Your task to perform on an android device: turn on translation in the chrome app Image 0: 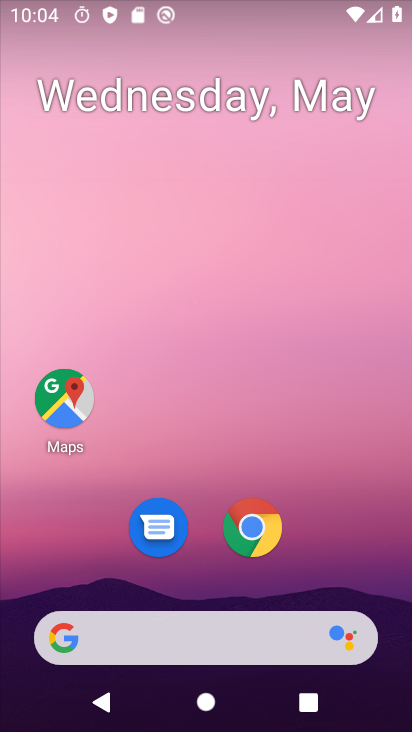
Step 0: press home button
Your task to perform on an android device: turn on translation in the chrome app Image 1: 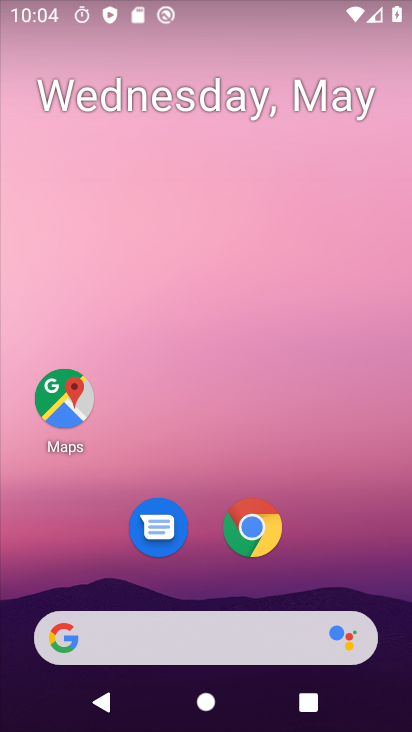
Step 1: click (252, 532)
Your task to perform on an android device: turn on translation in the chrome app Image 2: 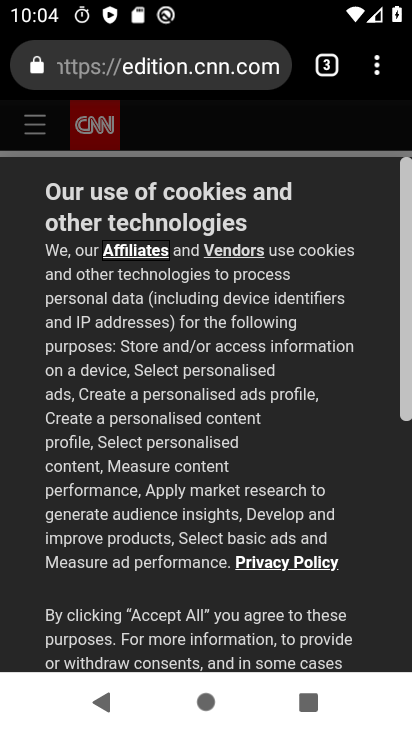
Step 2: drag from (378, 51) to (178, 582)
Your task to perform on an android device: turn on translation in the chrome app Image 3: 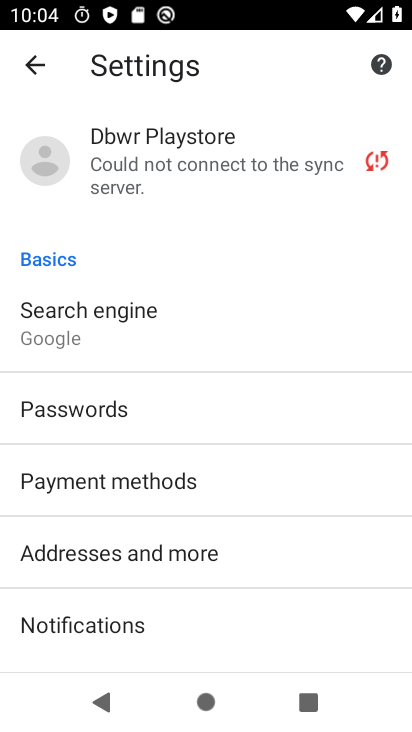
Step 3: drag from (339, 538) to (207, 281)
Your task to perform on an android device: turn on translation in the chrome app Image 4: 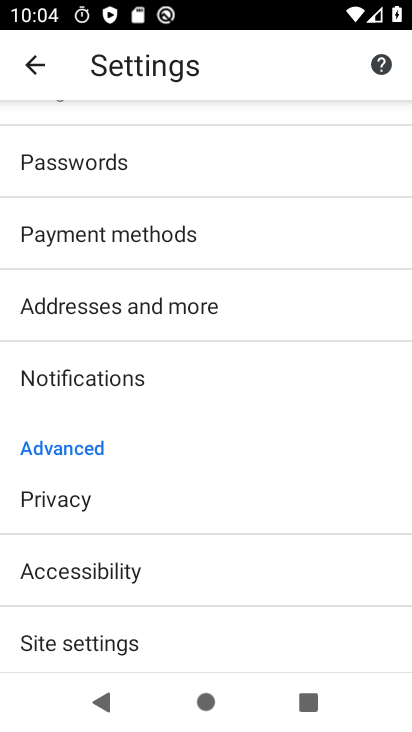
Step 4: drag from (199, 538) to (56, 253)
Your task to perform on an android device: turn on translation in the chrome app Image 5: 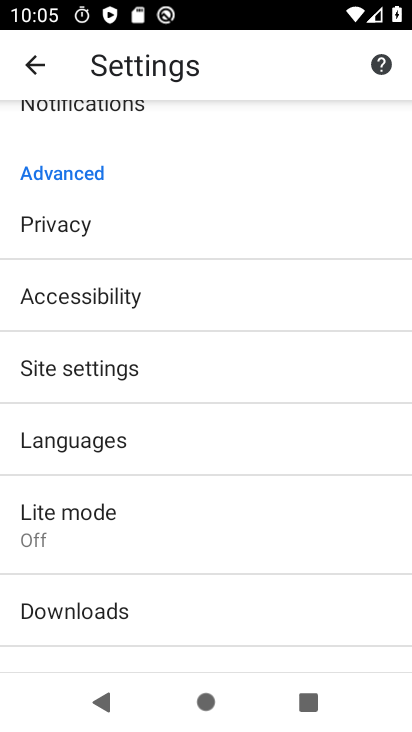
Step 5: click (132, 441)
Your task to perform on an android device: turn on translation in the chrome app Image 6: 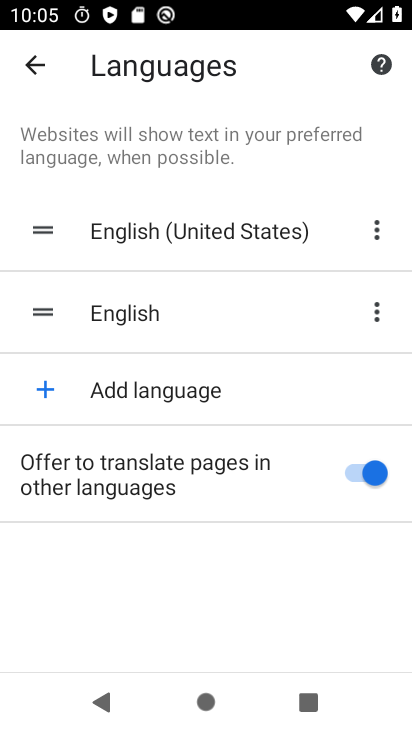
Step 6: task complete